Your task to perform on an android device: Open Google Chrome Image 0: 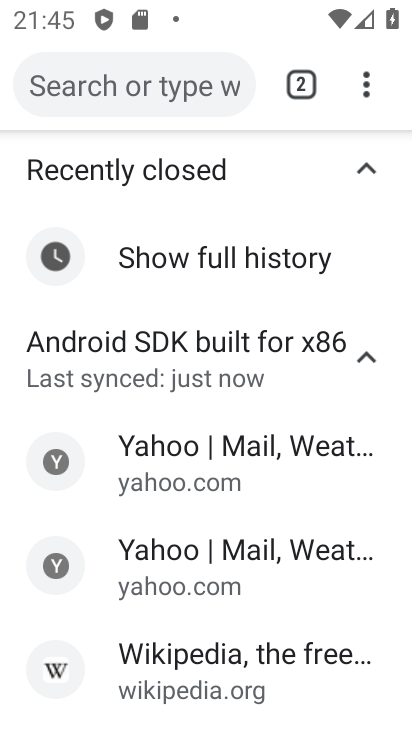
Step 0: press back button
Your task to perform on an android device: Open Google Chrome Image 1: 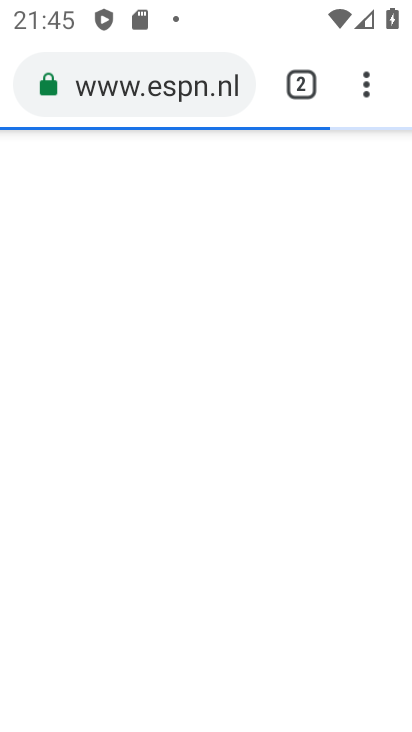
Step 1: task complete